Your task to perform on an android device: change the upload size in google photos Image 0: 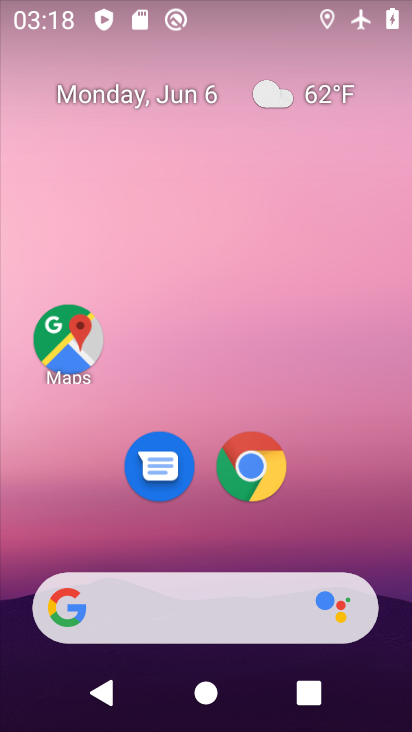
Step 0: drag from (328, 411) to (296, 80)
Your task to perform on an android device: change the upload size in google photos Image 1: 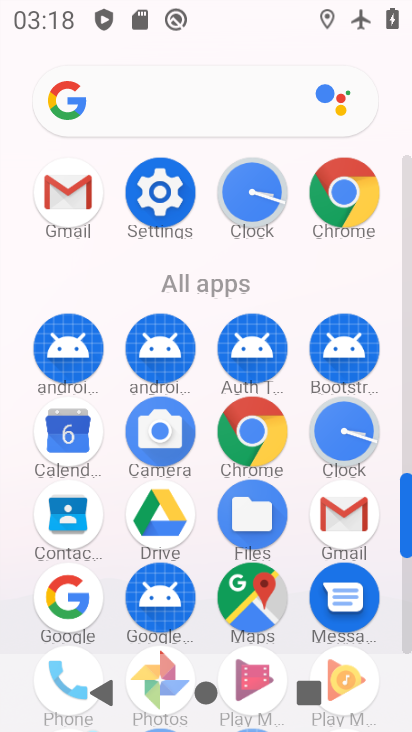
Step 1: drag from (215, 559) to (245, 72)
Your task to perform on an android device: change the upload size in google photos Image 2: 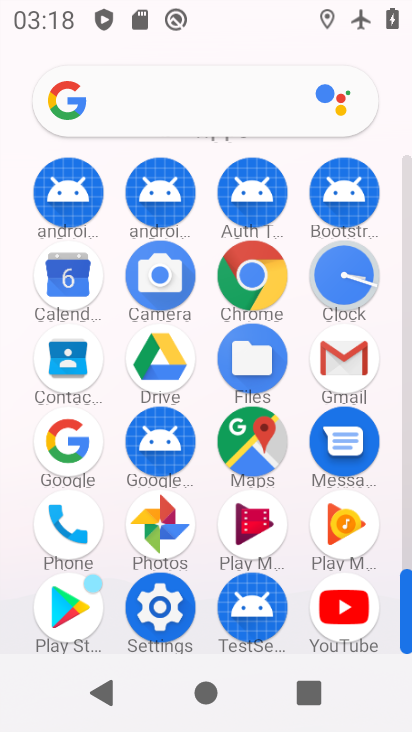
Step 2: click (157, 507)
Your task to perform on an android device: change the upload size in google photos Image 3: 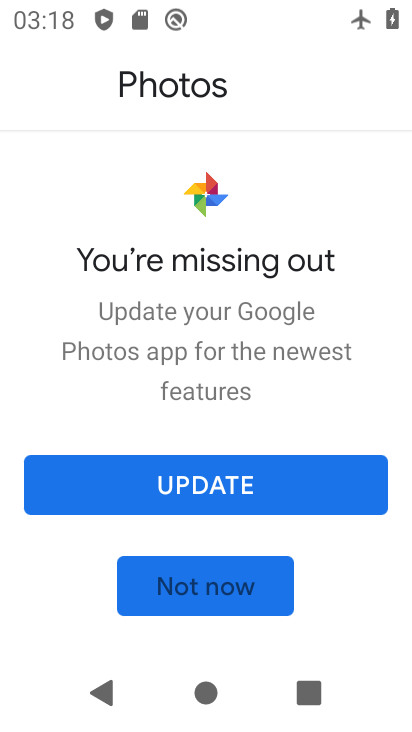
Step 3: click (272, 473)
Your task to perform on an android device: change the upload size in google photos Image 4: 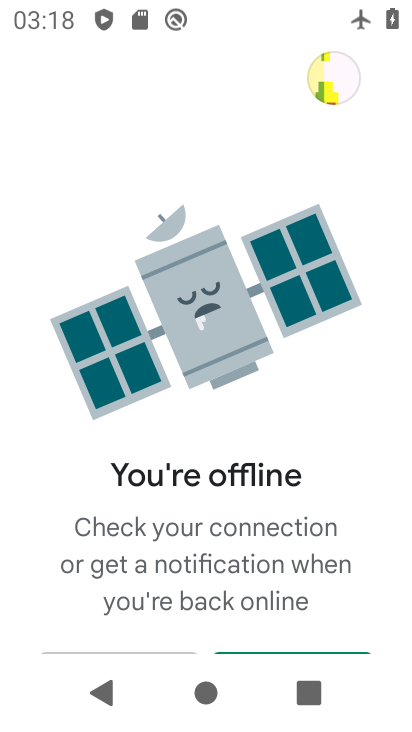
Step 4: task complete